Your task to perform on an android device: check the backup settings in the google photos Image 0: 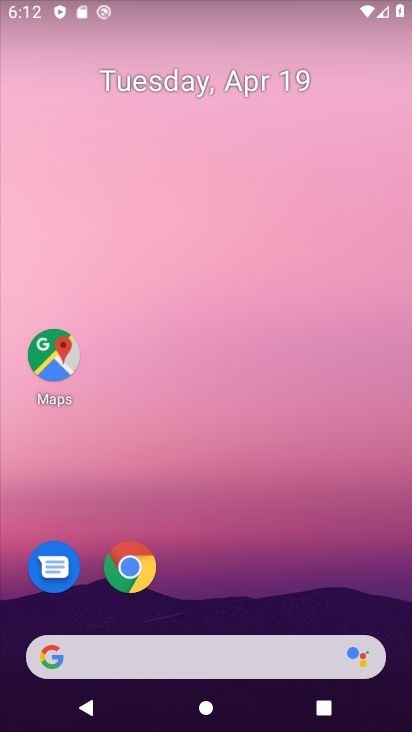
Step 0: drag from (294, 518) to (250, 106)
Your task to perform on an android device: check the backup settings in the google photos Image 1: 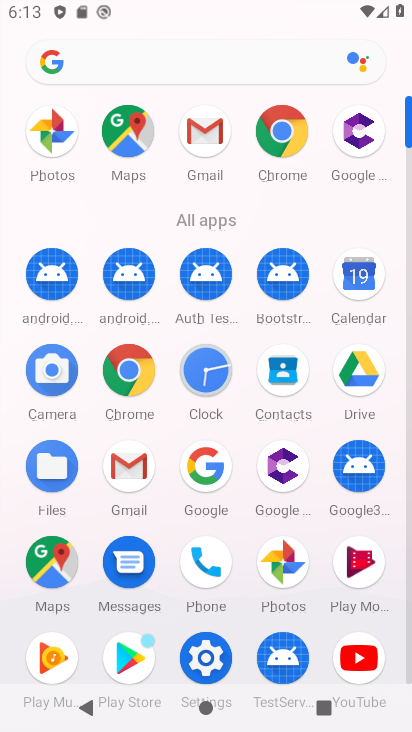
Step 1: click (282, 564)
Your task to perform on an android device: check the backup settings in the google photos Image 2: 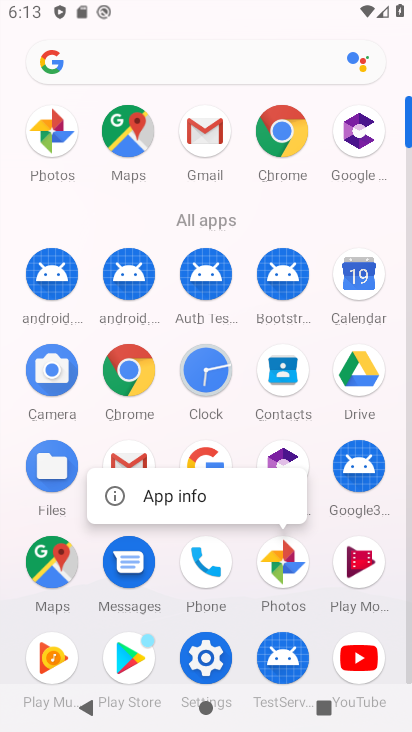
Step 2: click (288, 560)
Your task to perform on an android device: check the backup settings in the google photos Image 3: 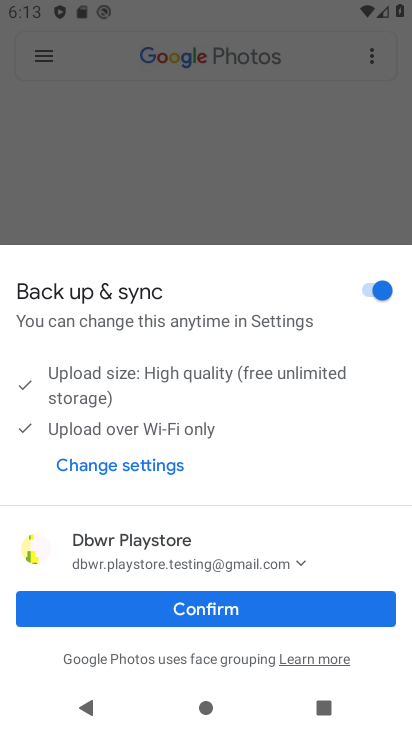
Step 3: click (171, 612)
Your task to perform on an android device: check the backup settings in the google photos Image 4: 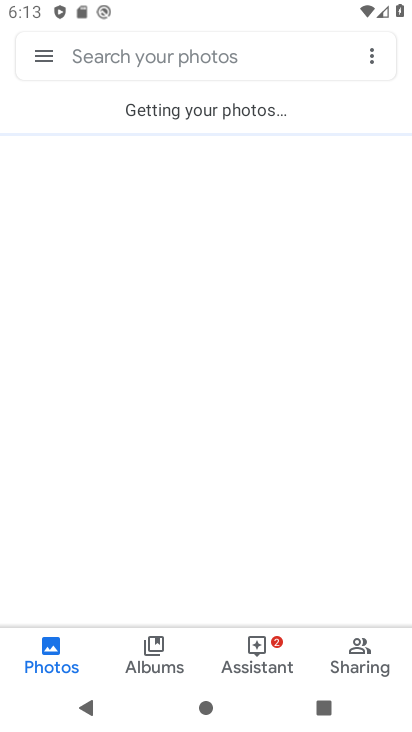
Step 4: click (370, 62)
Your task to perform on an android device: check the backup settings in the google photos Image 5: 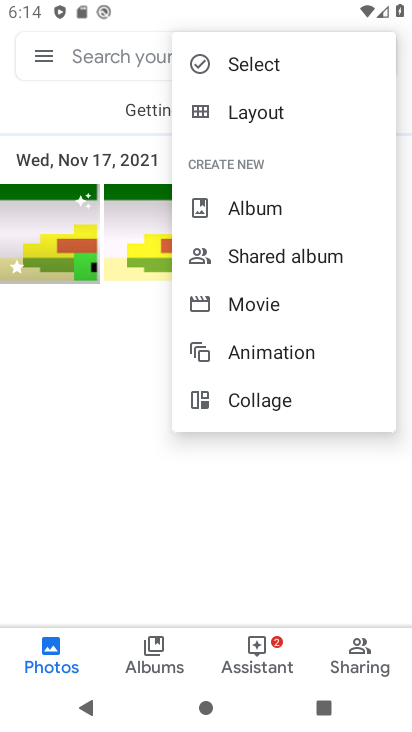
Step 5: click (44, 411)
Your task to perform on an android device: check the backup settings in the google photos Image 6: 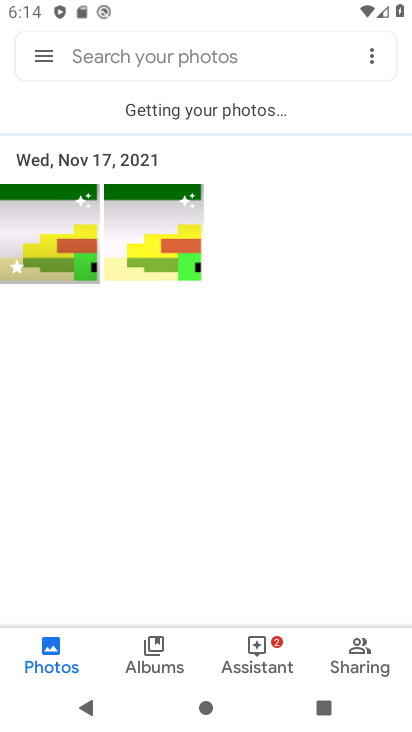
Step 6: click (29, 56)
Your task to perform on an android device: check the backup settings in the google photos Image 7: 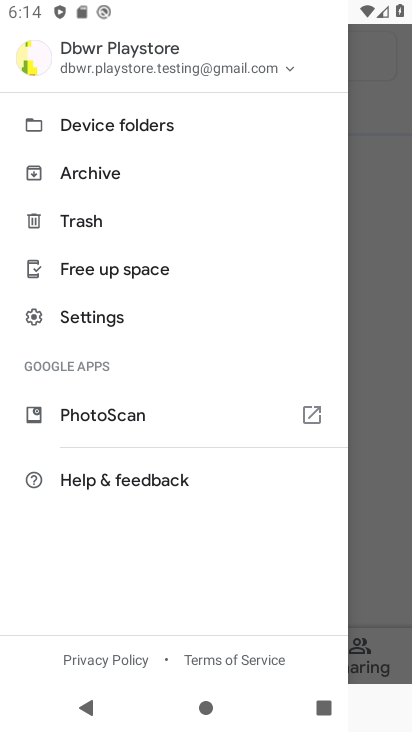
Step 7: click (101, 320)
Your task to perform on an android device: check the backup settings in the google photos Image 8: 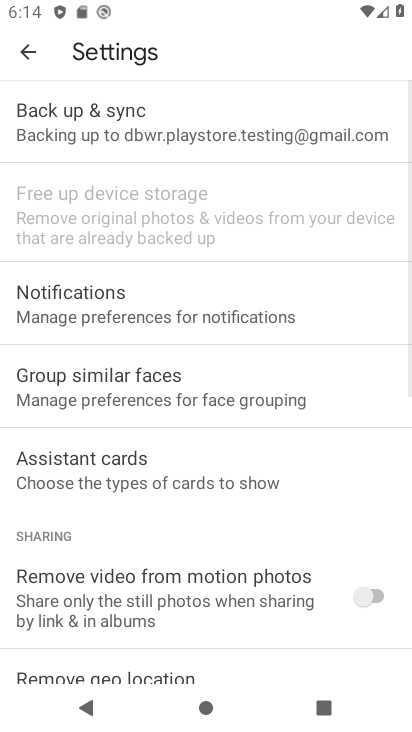
Step 8: click (159, 126)
Your task to perform on an android device: check the backup settings in the google photos Image 9: 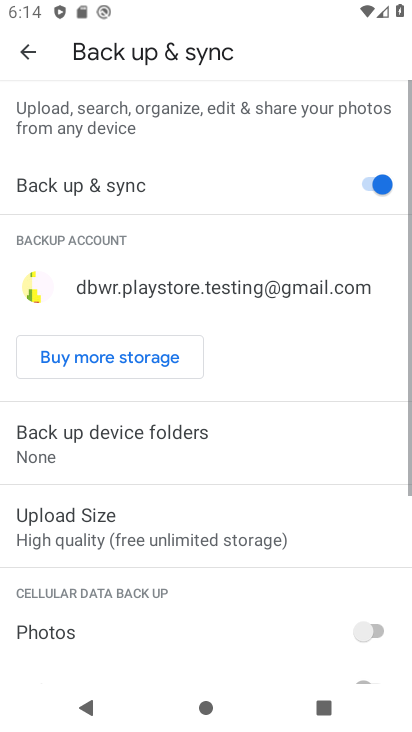
Step 9: task complete